Your task to perform on an android device: make emails show in primary in the gmail app Image 0: 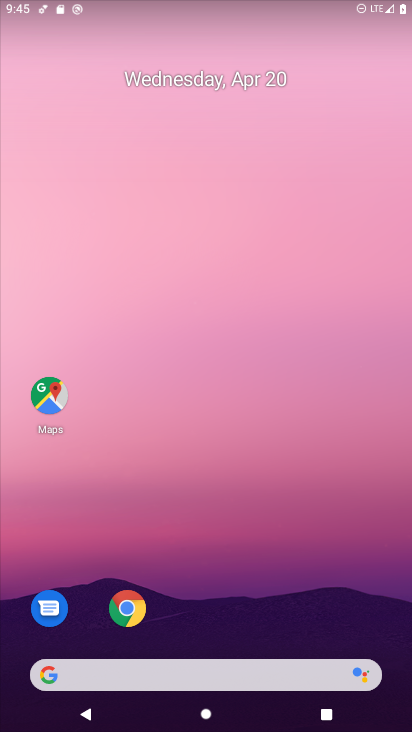
Step 0: drag from (205, 608) to (271, 0)
Your task to perform on an android device: make emails show in primary in the gmail app Image 1: 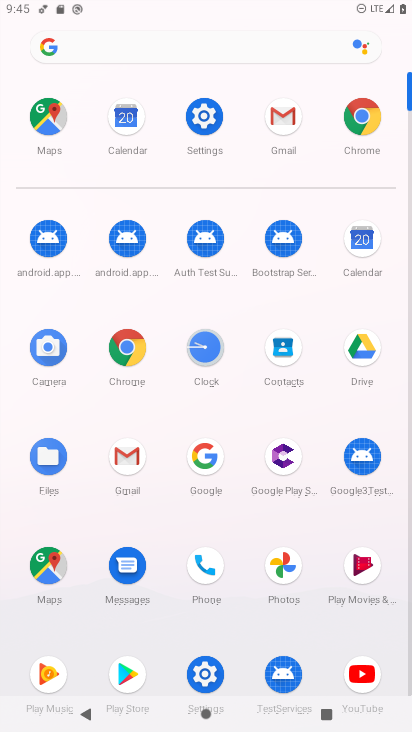
Step 1: click (125, 450)
Your task to perform on an android device: make emails show in primary in the gmail app Image 2: 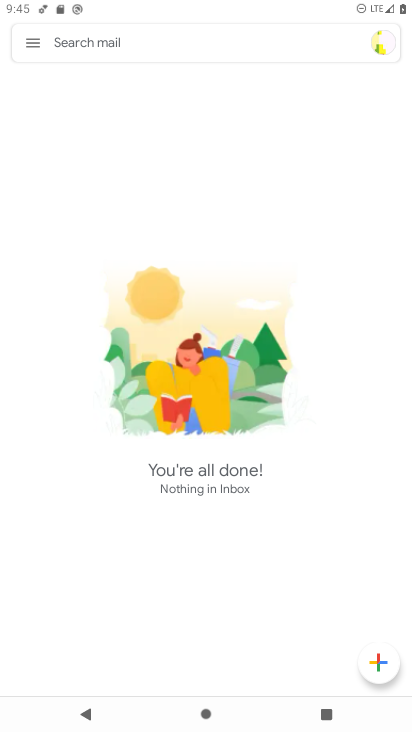
Step 2: click (30, 40)
Your task to perform on an android device: make emails show in primary in the gmail app Image 3: 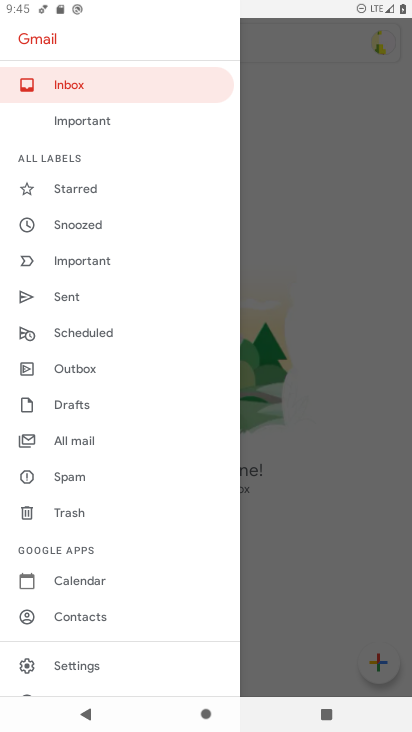
Step 3: click (75, 660)
Your task to perform on an android device: make emails show in primary in the gmail app Image 4: 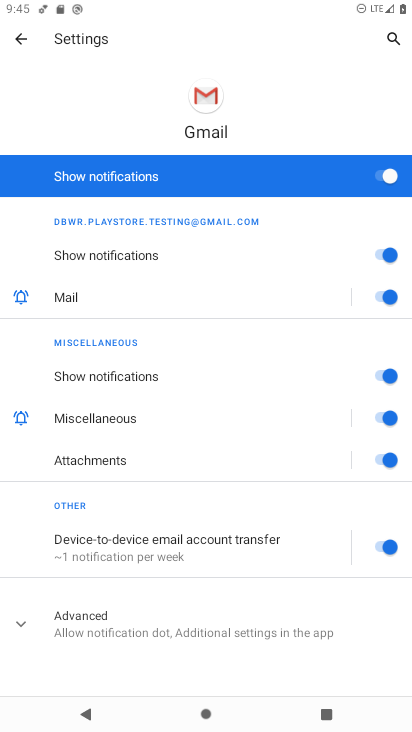
Step 4: click (17, 39)
Your task to perform on an android device: make emails show in primary in the gmail app Image 5: 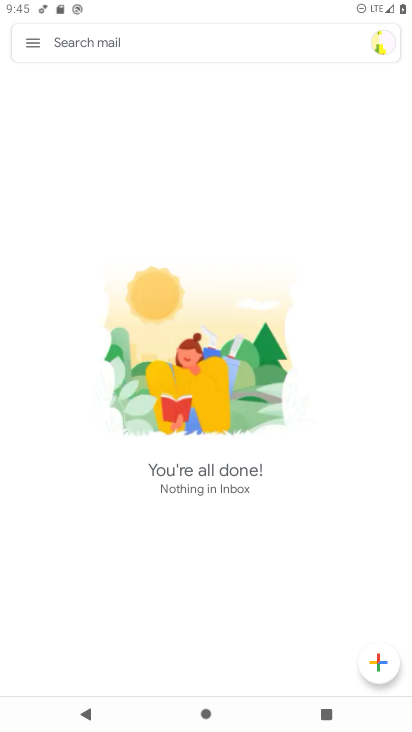
Step 5: click (16, 38)
Your task to perform on an android device: make emails show in primary in the gmail app Image 6: 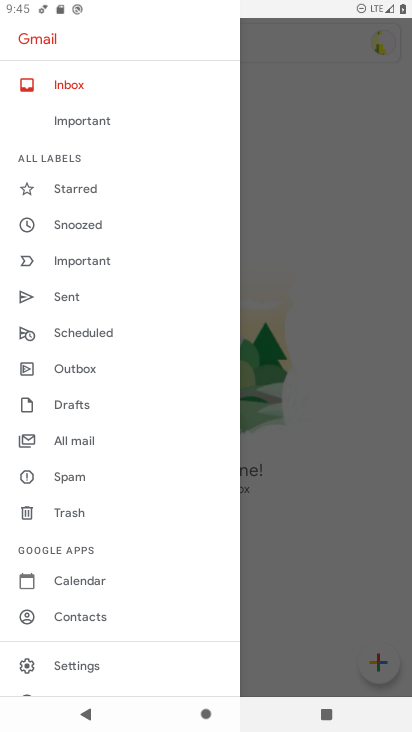
Step 6: click (64, 670)
Your task to perform on an android device: make emails show in primary in the gmail app Image 7: 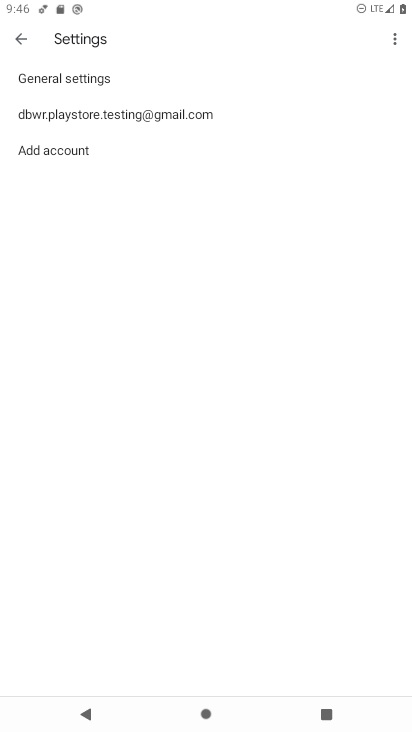
Step 7: click (85, 115)
Your task to perform on an android device: make emails show in primary in the gmail app Image 8: 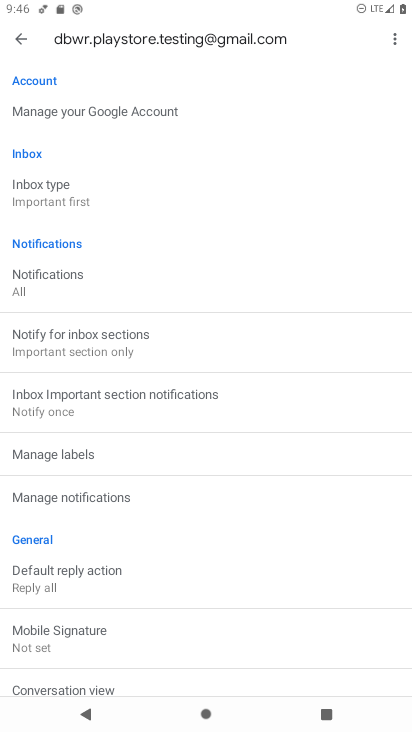
Step 8: click (43, 197)
Your task to perform on an android device: make emails show in primary in the gmail app Image 9: 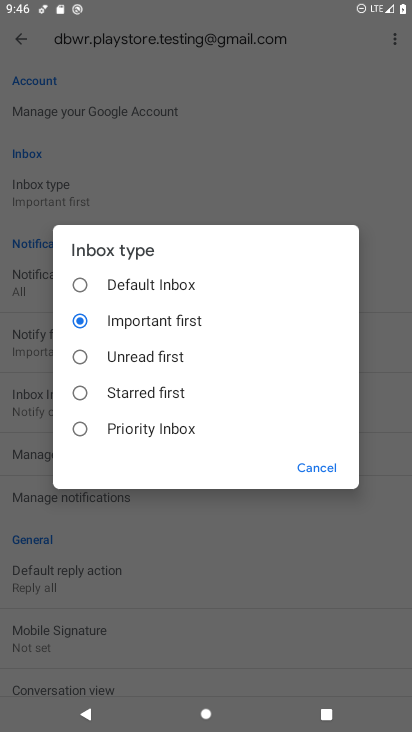
Step 9: click (79, 282)
Your task to perform on an android device: make emails show in primary in the gmail app Image 10: 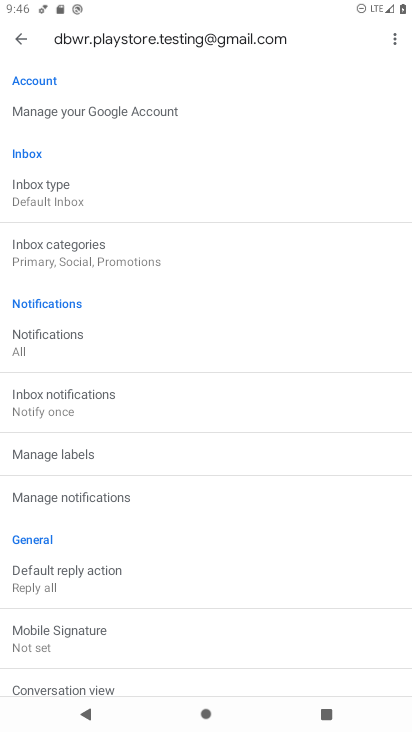
Step 10: click (82, 263)
Your task to perform on an android device: make emails show in primary in the gmail app Image 11: 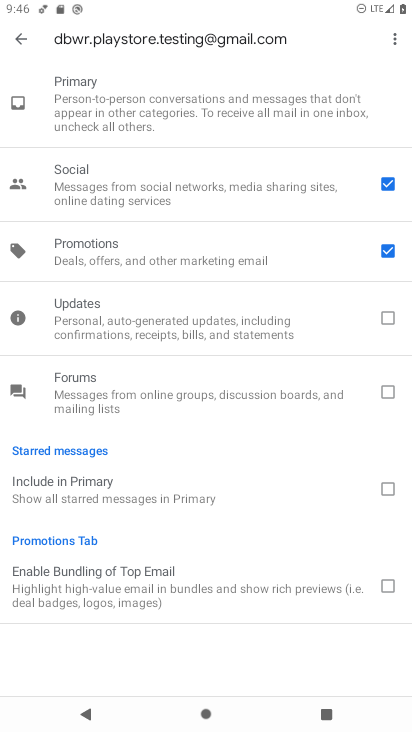
Step 11: click (390, 247)
Your task to perform on an android device: make emails show in primary in the gmail app Image 12: 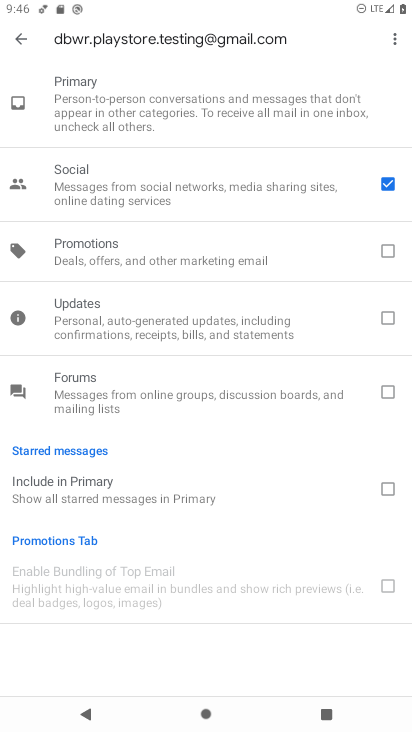
Step 12: click (388, 178)
Your task to perform on an android device: make emails show in primary in the gmail app Image 13: 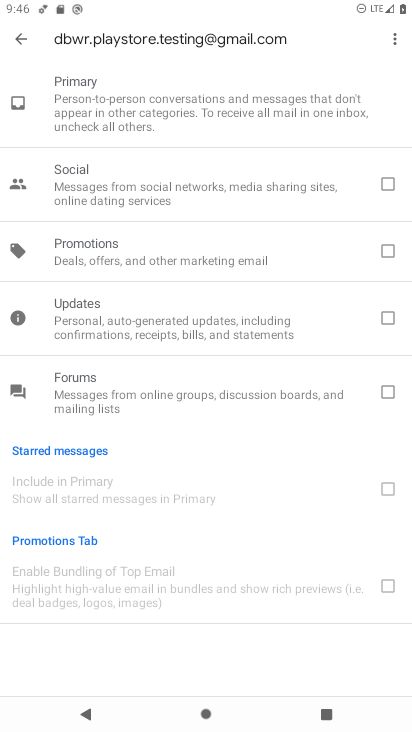
Step 13: task complete